Your task to perform on an android device: See recent photos Image 0: 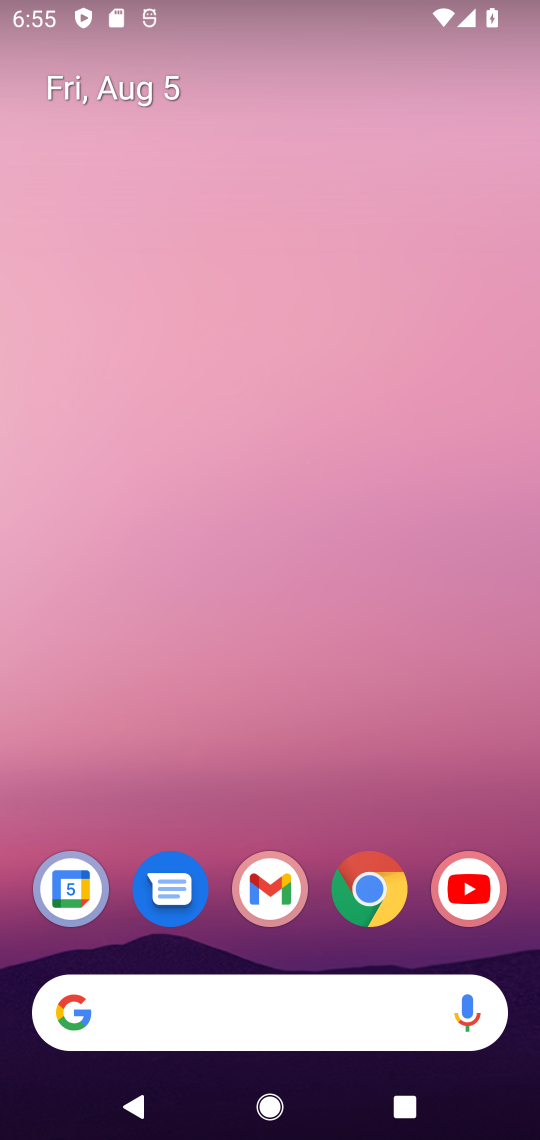
Step 0: drag from (250, 724) to (269, 230)
Your task to perform on an android device: See recent photos Image 1: 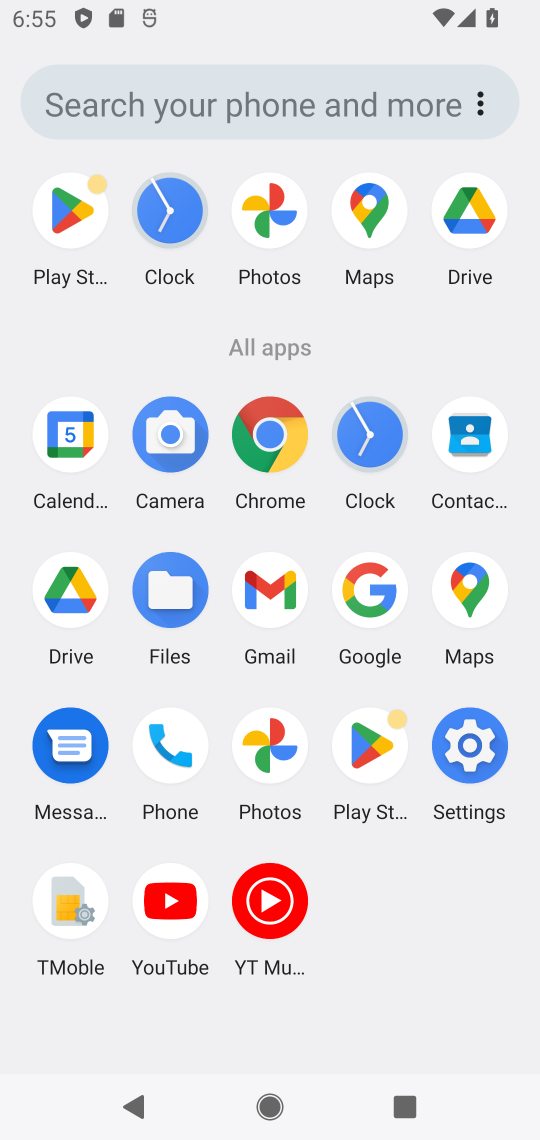
Step 1: click (257, 740)
Your task to perform on an android device: See recent photos Image 2: 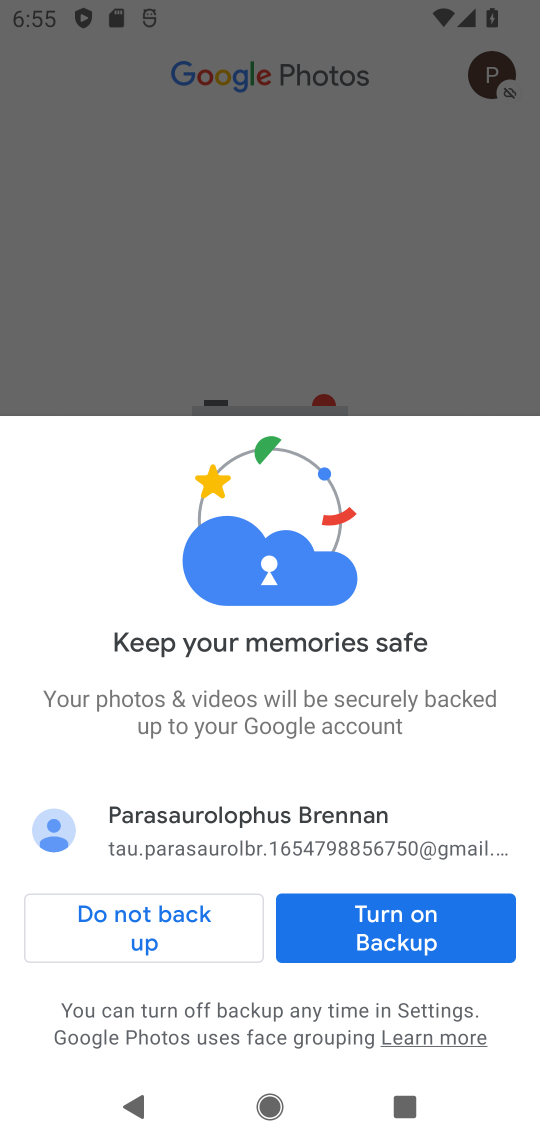
Step 2: click (366, 923)
Your task to perform on an android device: See recent photos Image 3: 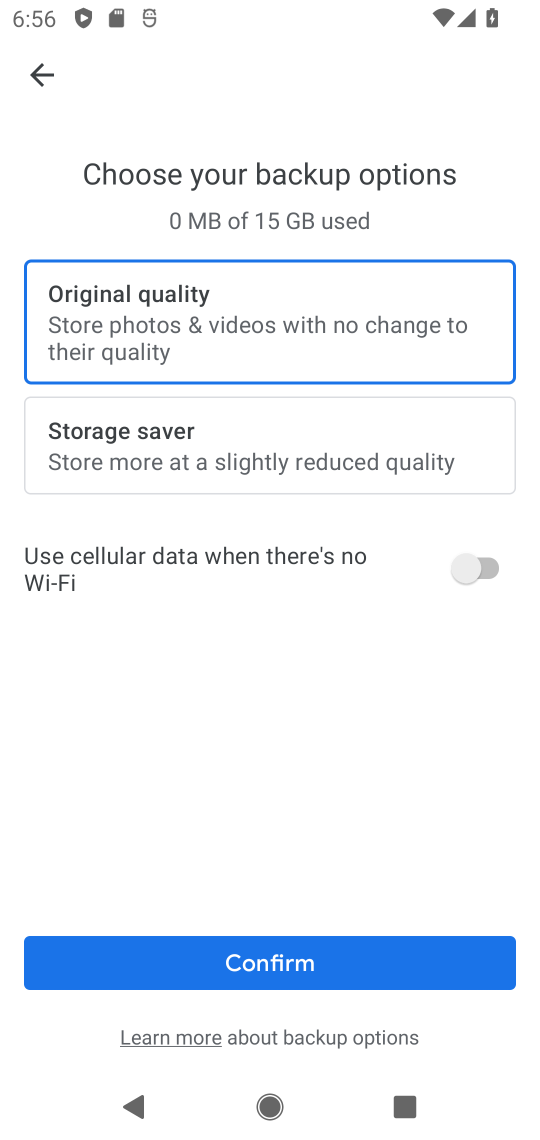
Step 3: click (297, 966)
Your task to perform on an android device: See recent photos Image 4: 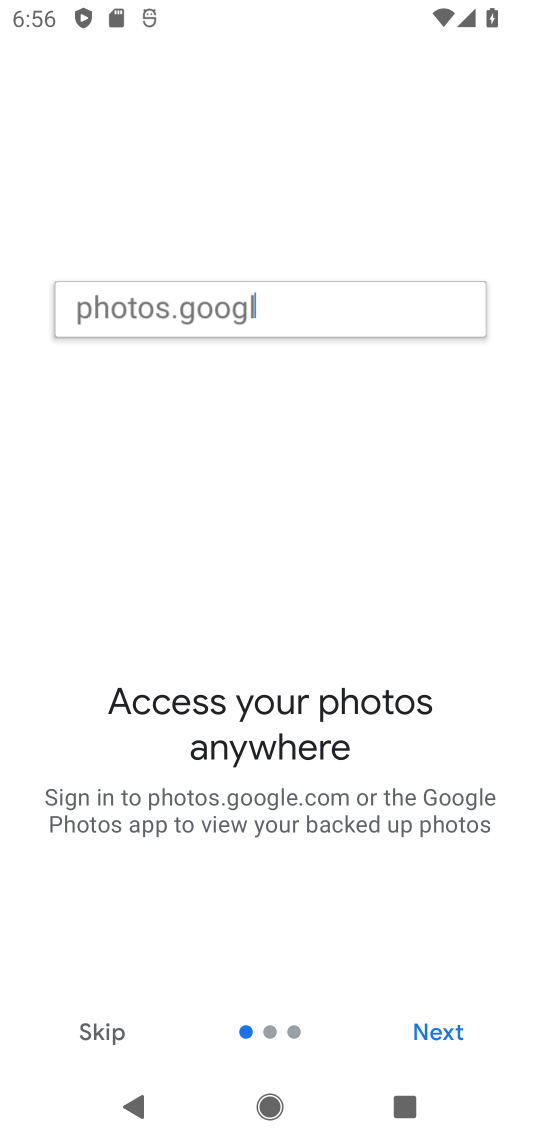
Step 4: click (438, 1034)
Your task to perform on an android device: See recent photos Image 5: 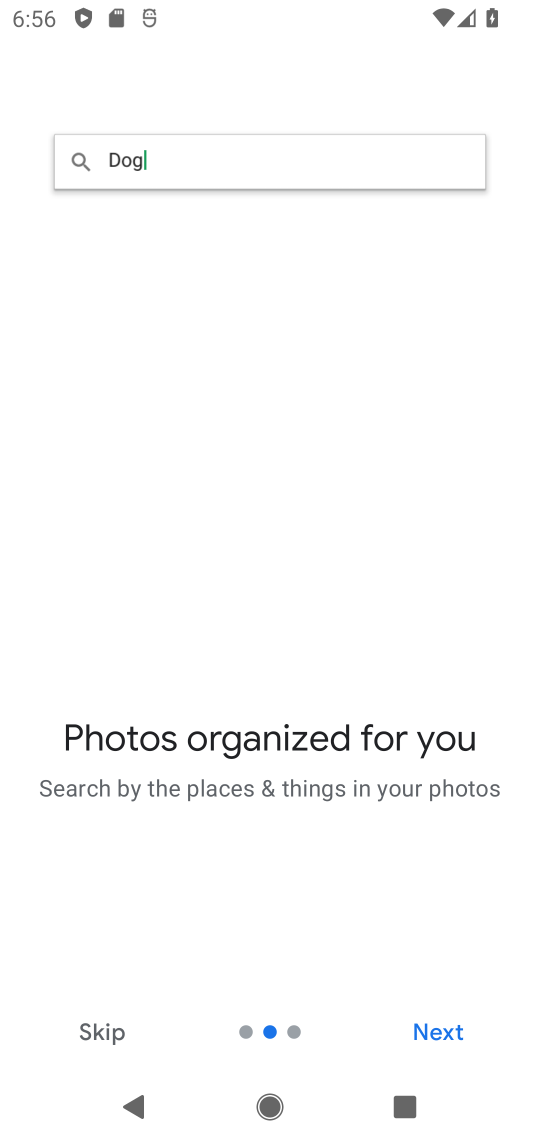
Step 5: click (438, 1034)
Your task to perform on an android device: See recent photos Image 6: 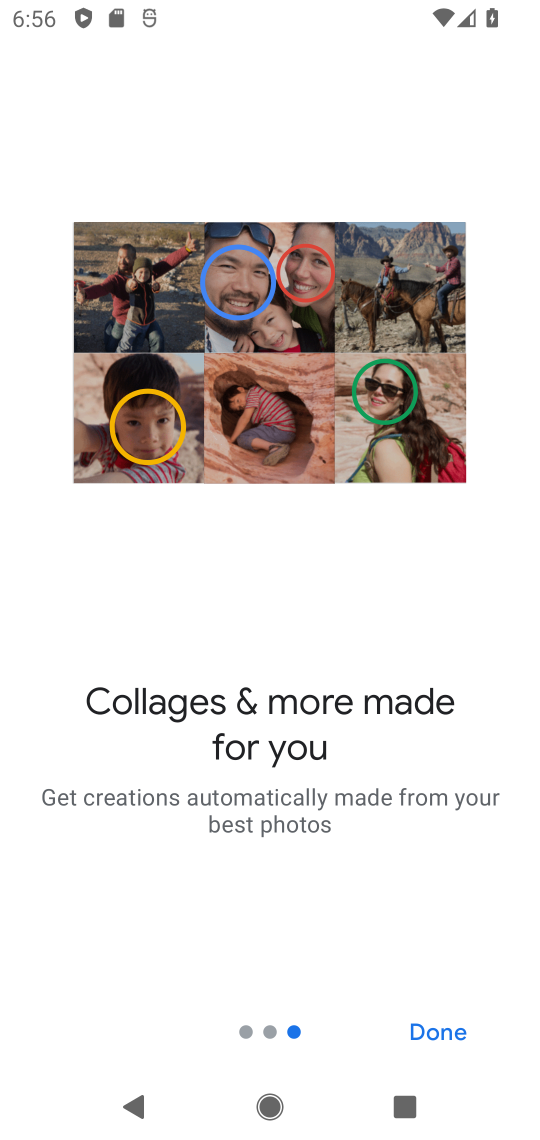
Step 6: click (438, 1034)
Your task to perform on an android device: See recent photos Image 7: 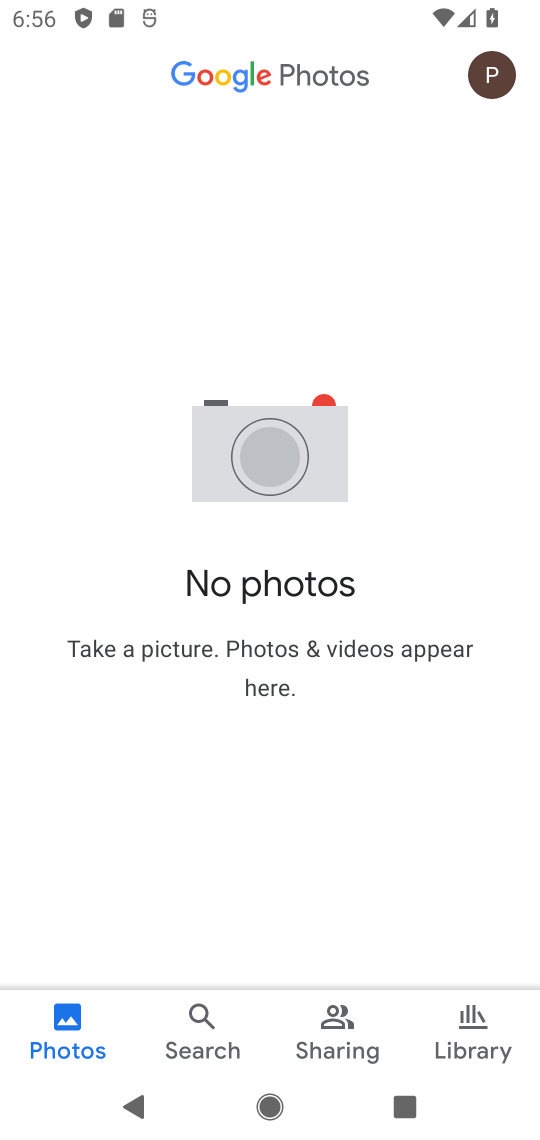
Step 7: task complete